Your task to perform on an android device: What's the weather going to be this weekend? Image 0: 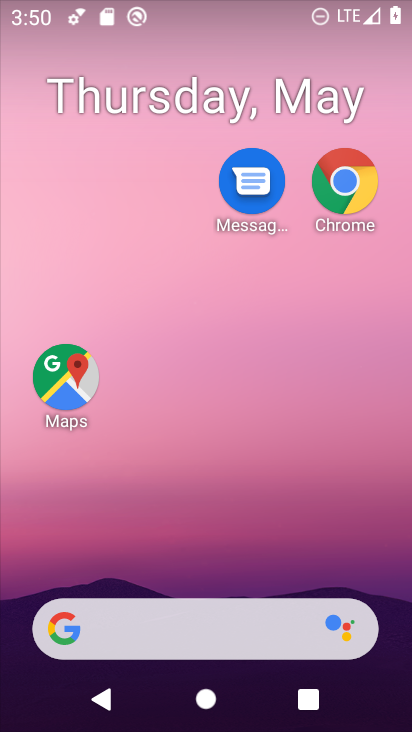
Step 0: drag from (290, 640) to (331, 32)
Your task to perform on an android device: What's the weather going to be this weekend? Image 1: 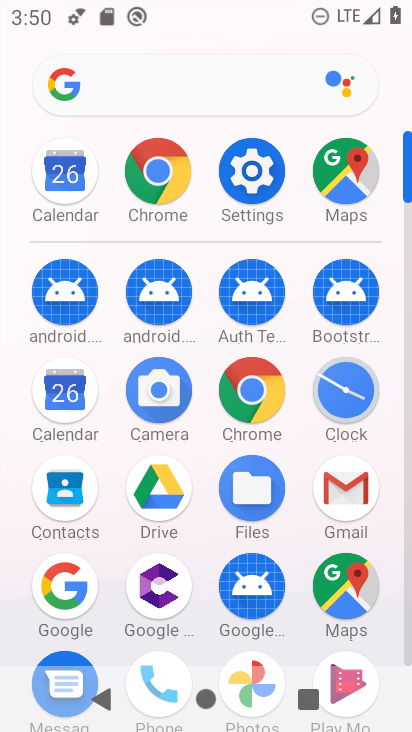
Step 1: click (88, 395)
Your task to perform on an android device: What's the weather going to be this weekend? Image 2: 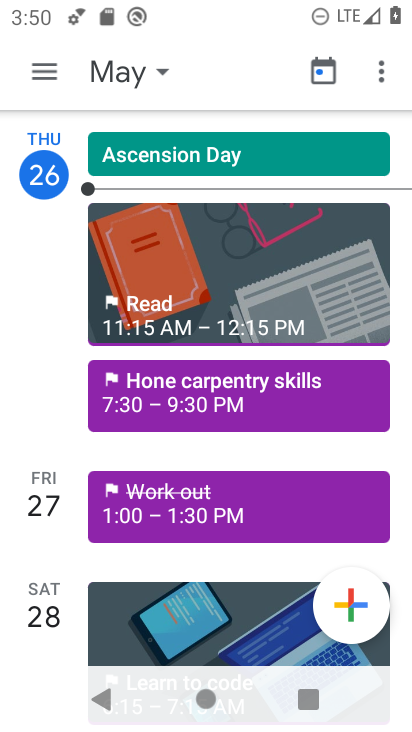
Step 2: click (163, 73)
Your task to perform on an android device: What's the weather going to be this weekend? Image 3: 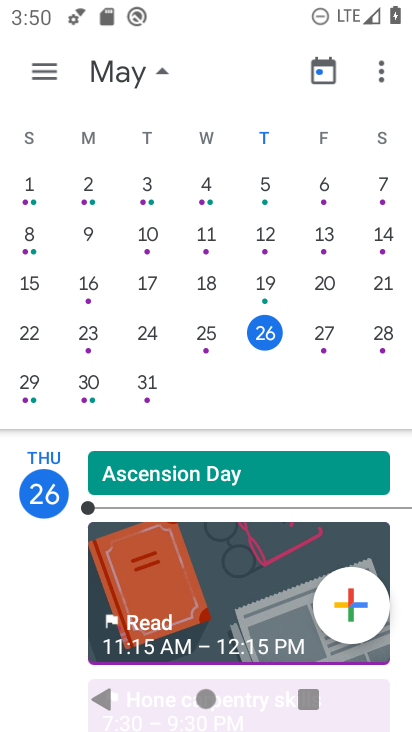
Step 3: press home button
Your task to perform on an android device: What's the weather going to be this weekend? Image 4: 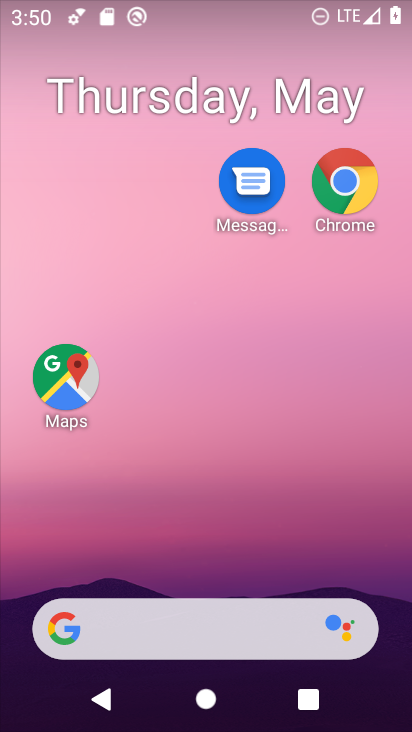
Step 4: drag from (40, 273) to (325, 286)
Your task to perform on an android device: What's the weather going to be this weekend? Image 5: 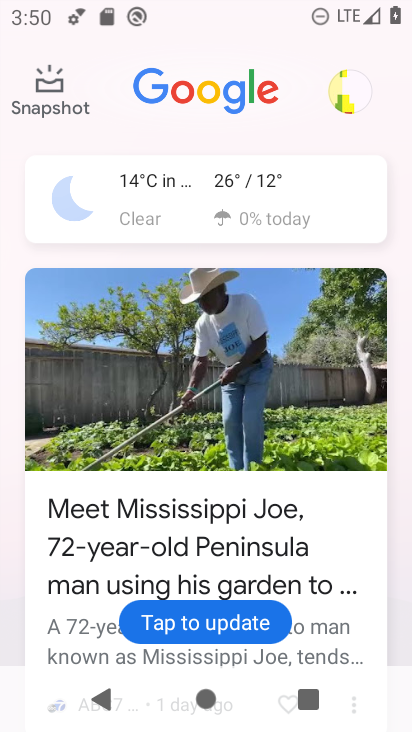
Step 5: click (302, 215)
Your task to perform on an android device: What's the weather going to be this weekend? Image 6: 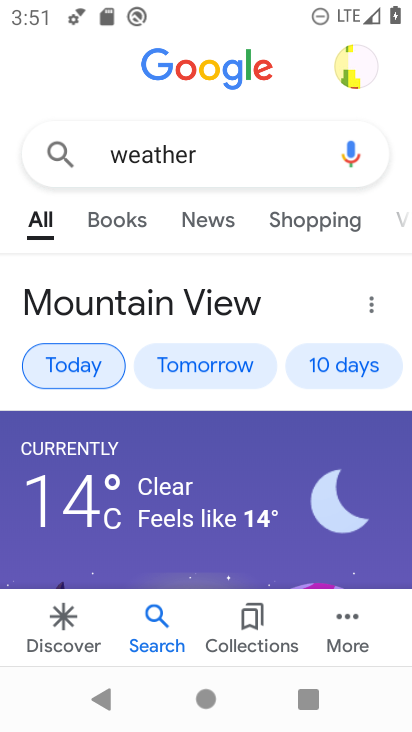
Step 6: click (320, 363)
Your task to perform on an android device: What's the weather going to be this weekend? Image 7: 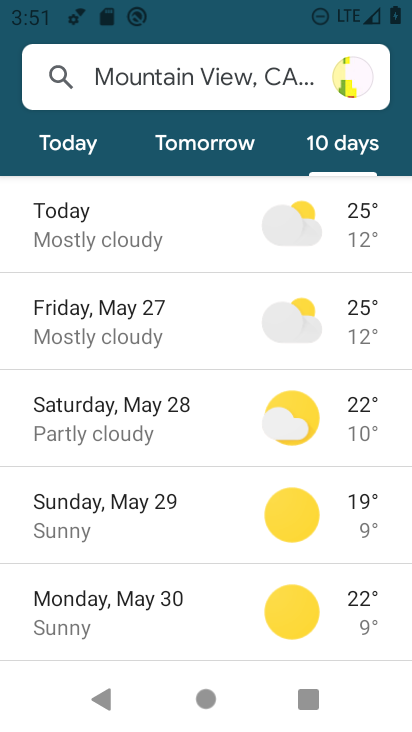
Step 7: task complete